Your task to perform on an android device: turn off translation in the chrome app Image 0: 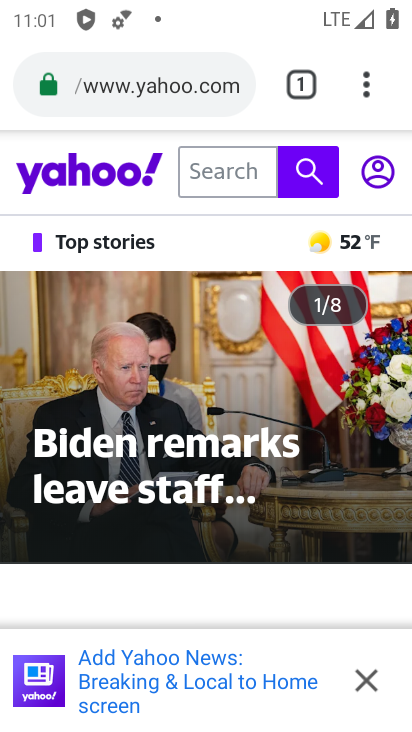
Step 0: drag from (377, 81) to (100, 588)
Your task to perform on an android device: turn off translation in the chrome app Image 1: 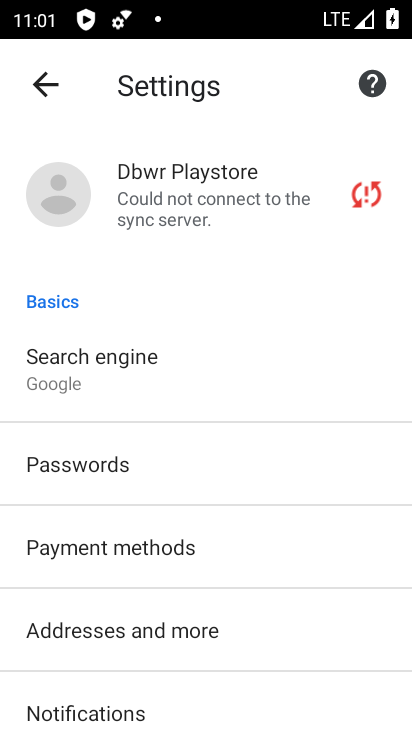
Step 1: drag from (181, 651) to (93, 224)
Your task to perform on an android device: turn off translation in the chrome app Image 2: 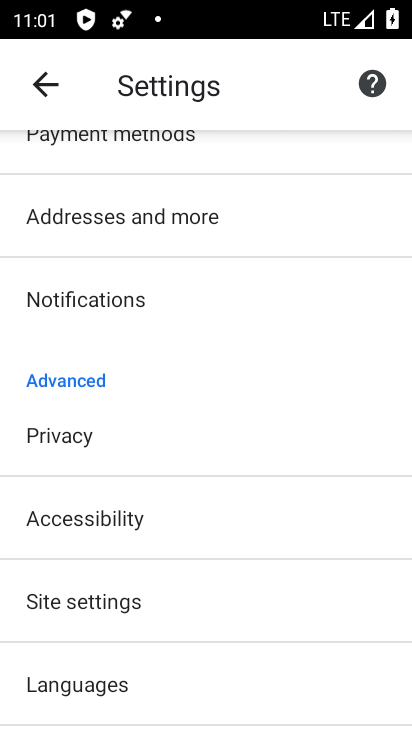
Step 2: click (127, 674)
Your task to perform on an android device: turn off translation in the chrome app Image 3: 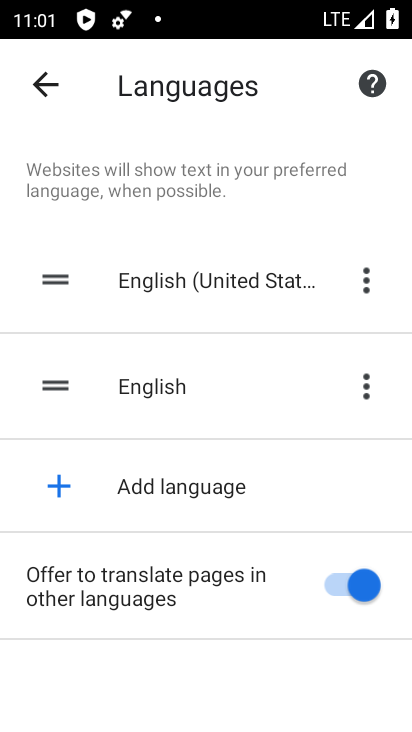
Step 3: click (350, 582)
Your task to perform on an android device: turn off translation in the chrome app Image 4: 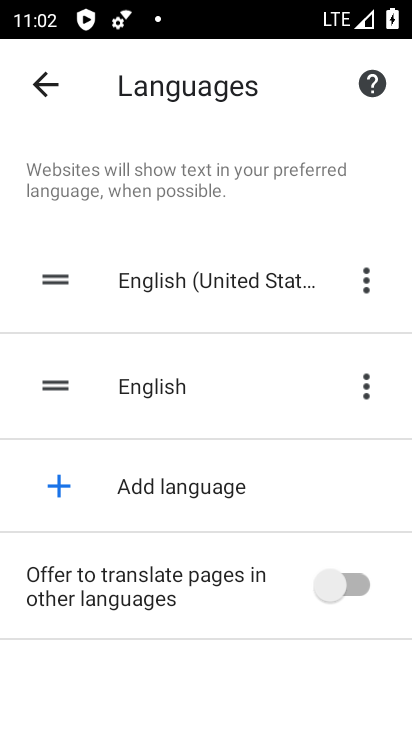
Step 4: task complete